Your task to perform on an android device: When is my next appointment? Image 0: 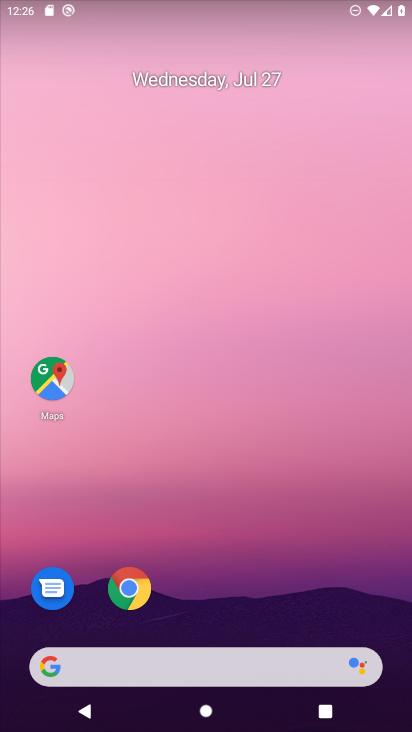
Step 0: drag from (28, 702) to (215, 188)
Your task to perform on an android device: When is my next appointment? Image 1: 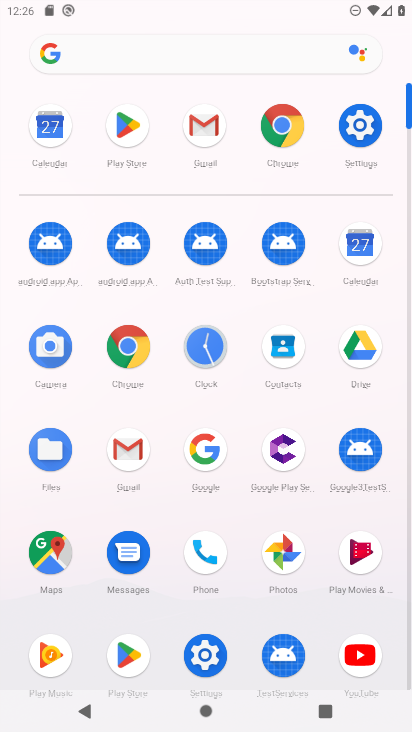
Step 1: click (354, 251)
Your task to perform on an android device: When is my next appointment? Image 2: 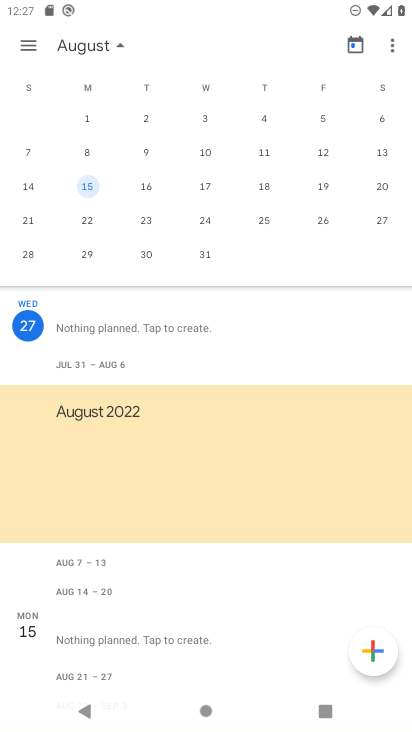
Step 2: task complete